Your task to perform on an android device: turn on improve location accuracy Image 0: 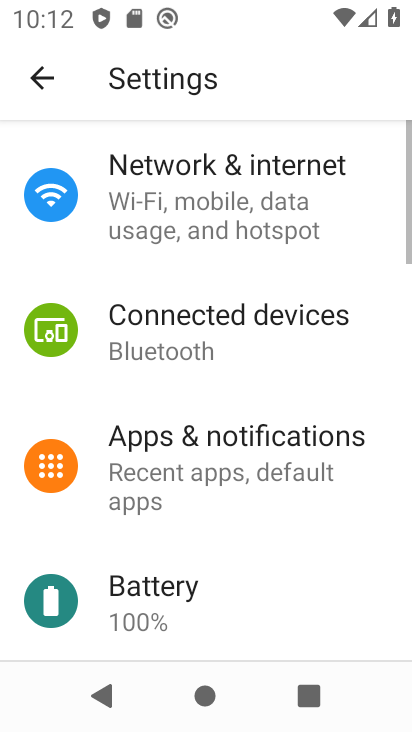
Step 0: press home button
Your task to perform on an android device: turn on improve location accuracy Image 1: 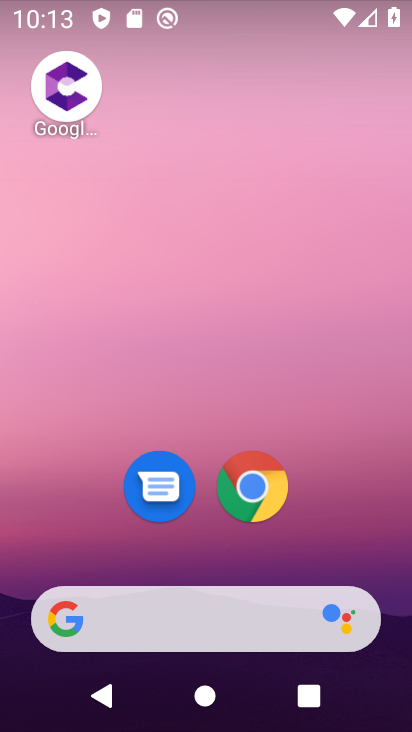
Step 1: drag from (248, 536) to (279, 166)
Your task to perform on an android device: turn on improve location accuracy Image 2: 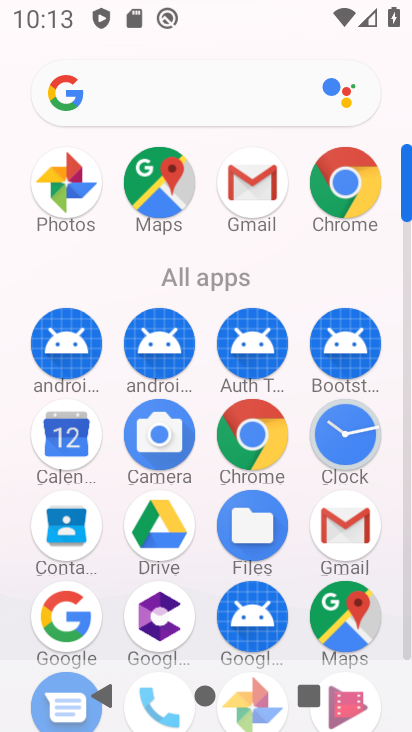
Step 2: drag from (209, 475) to (219, 334)
Your task to perform on an android device: turn on improve location accuracy Image 3: 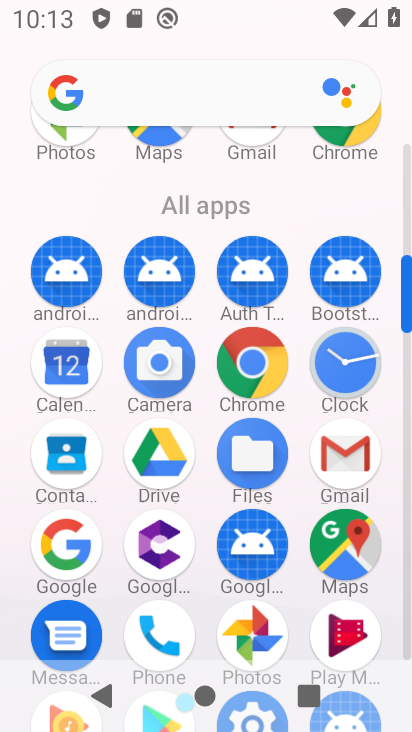
Step 3: drag from (216, 488) to (273, 303)
Your task to perform on an android device: turn on improve location accuracy Image 4: 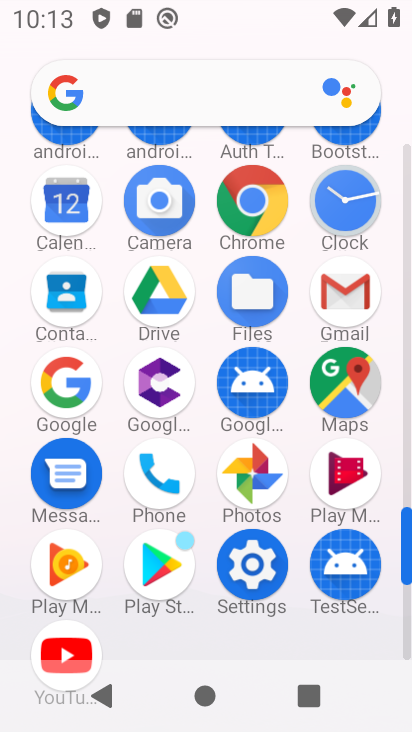
Step 4: click (269, 552)
Your task to perform on an android device: turn on improve location accuracy Image 5: 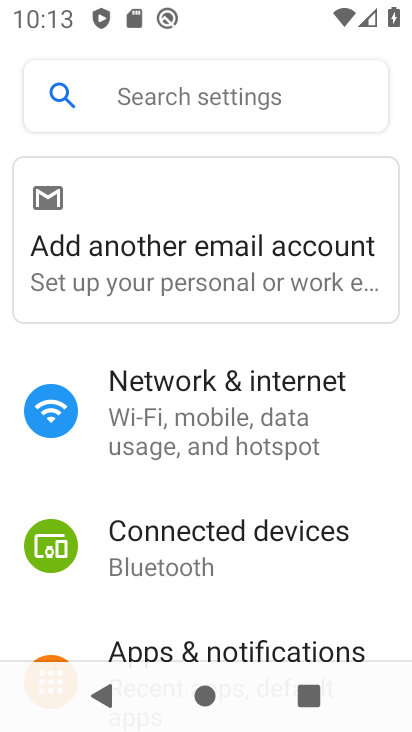
Step 5: click (194, 120)
Your task to perform on an android device: turn on improve location accuracy Image 6: 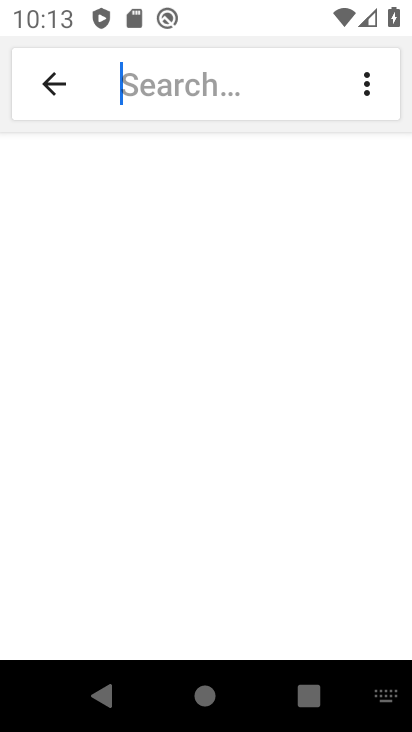
Step 6: click (385, 686)
Your task to perform on an android device: turn on improve location accuracy Image 7: 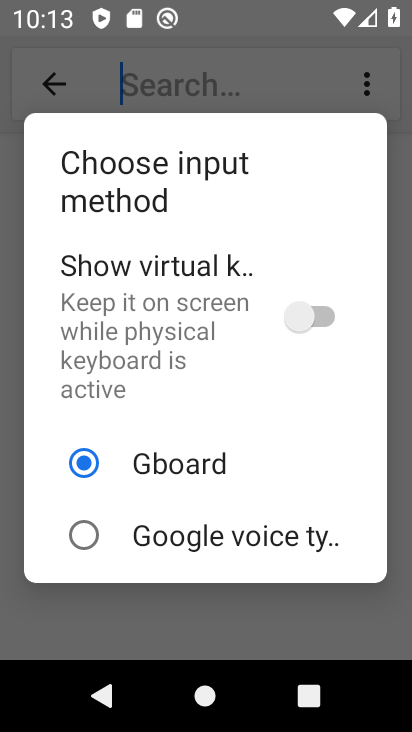
Step 7: click (304, 297)
Your task to perform on an android device: turn on improve location accuracy Image 8: 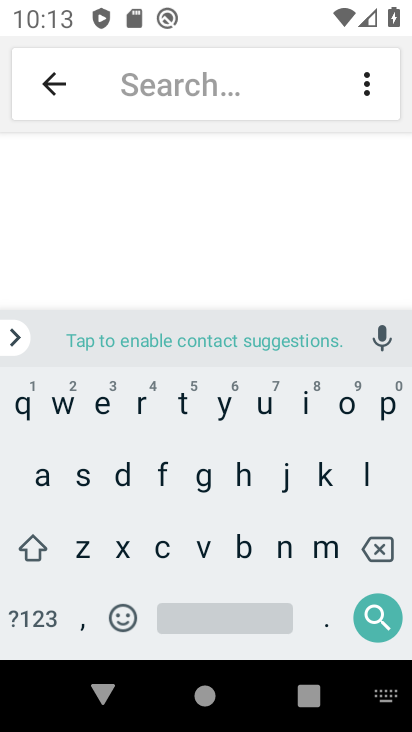
Step 8: click (360, 474)
Your task to perform on an android device: turn on improve location accuracy Image 9: 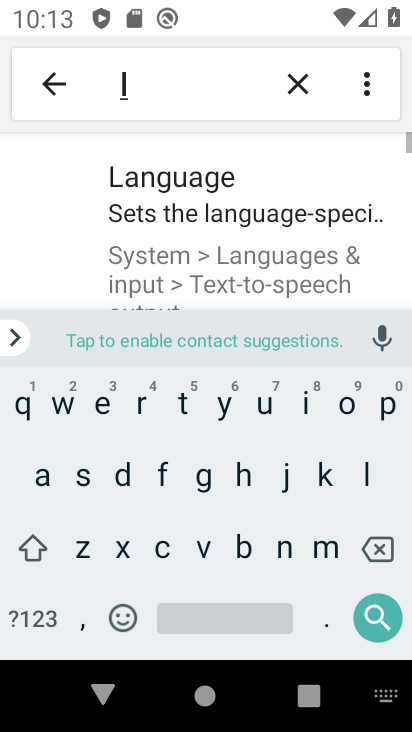
Step 9: click (346, 410)
Your task to perform on an android device: turn on improve location accuracy Image 10: 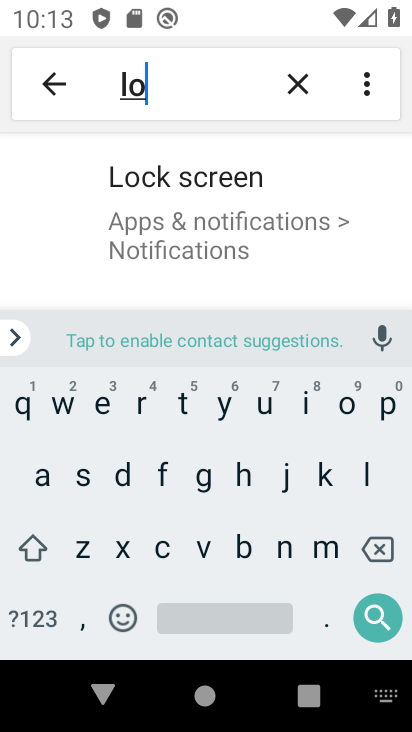
Step 10: drag from (171, 274) to (209, 161)
Your task to perform on an android device: turn on improve location accuracy Image 11: 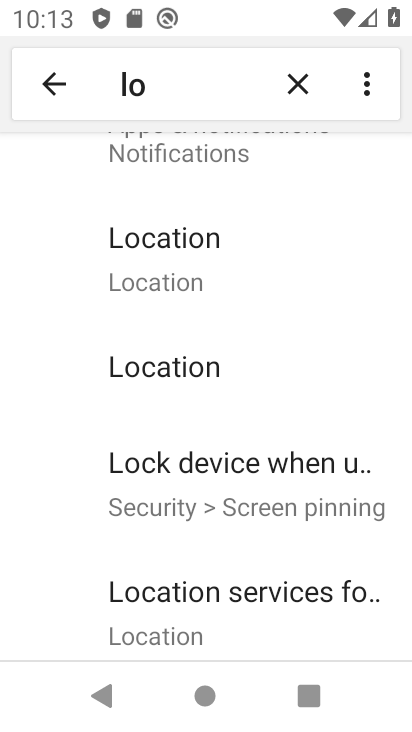
Step 11: click (157, 264)
Your task to perform on an android device: turn on improve location accuracy Image 12: 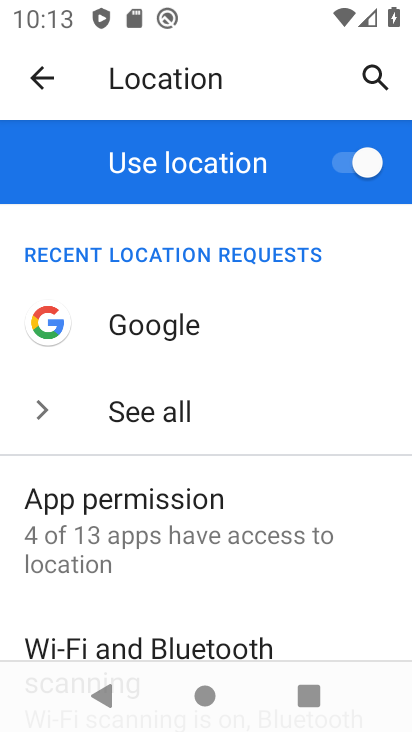
Step 12: drag from (214, 545) to (210, 282)
Your task to perform on an android device: turn on improve location accuracy Image 13: 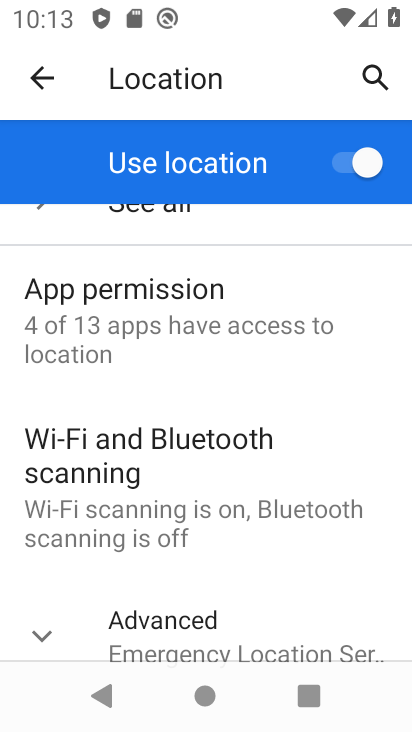
Step 13: click (51, 624)
Your task to perform on an android device: turn on improve location accuracy Image 14: 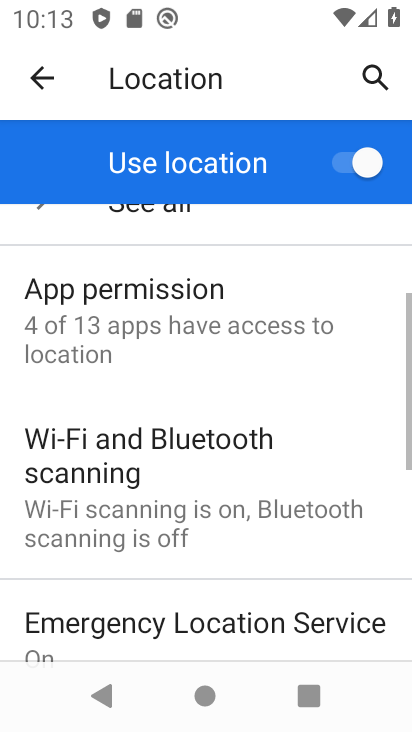
Step 14: drag from (132, 600) to (188, 366)
Your task to perform on an android device: turn on improve location accuracy Image 15: 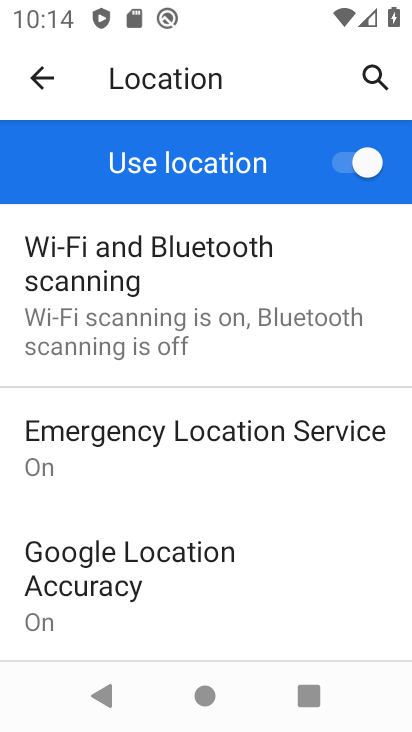
Step 15: click (163, 568)
Your task to perform on an android device: turn on improve location accuracy Image 16: 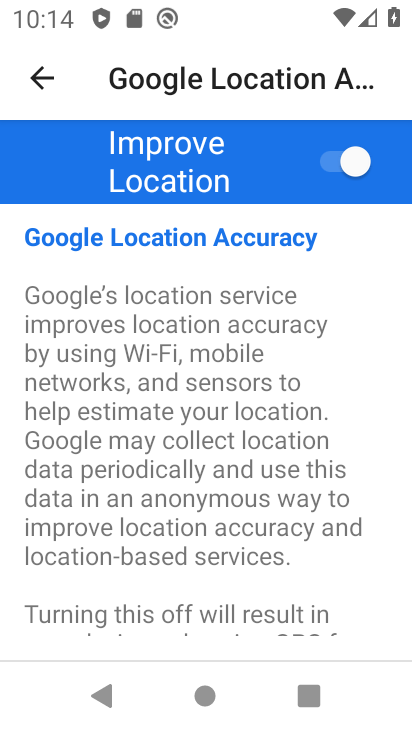
Step 16: click (364, 176)
Your task to perform on an android device: turn on improve location accuracy Image 17: 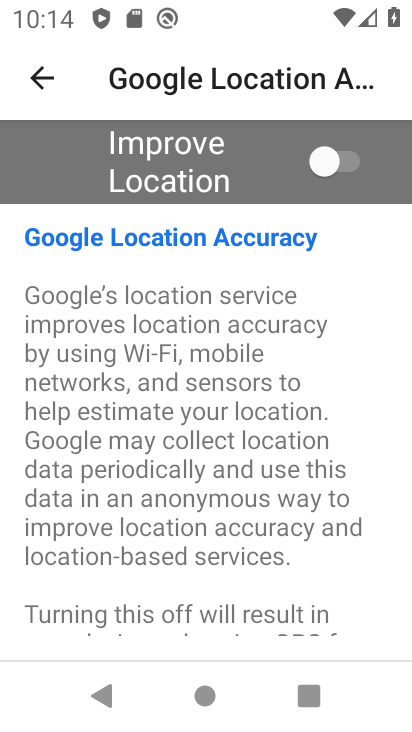
Step 17: click (361, 177)
Your task to perform on an android device: turn on improve location accuracy Image 18: 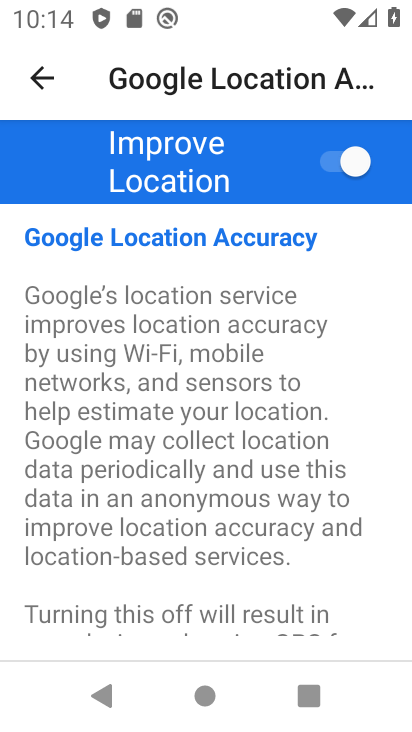
Step 18: task complete